Your task to perform on an android device: uninstall "Google Chrome" Image 0: 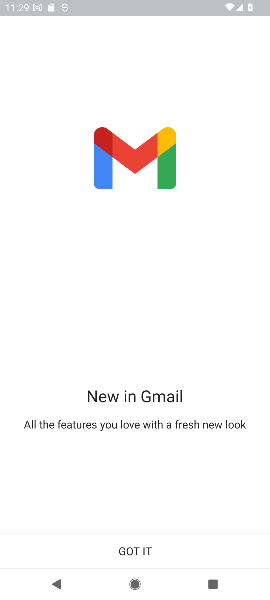
Step 0: press home button
Your task to perform on an android device: uninstall "Google Chrome" Image 1: 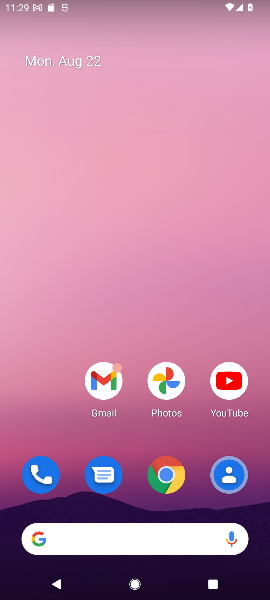
Step 1: drag from (113, 453) to (84, 24)
Your task to perform on an android device: uninstall "Google Chrome" Image 2: 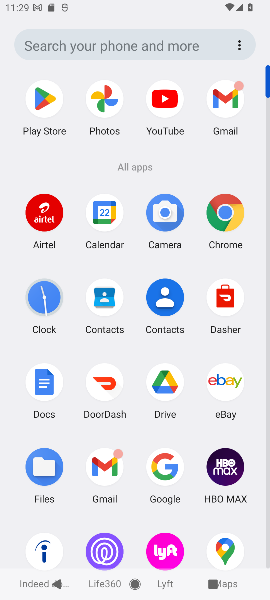
Step 2: click (47, 112)
Your task to perform on an android device: uninstall "Google Chrome" Image 3: 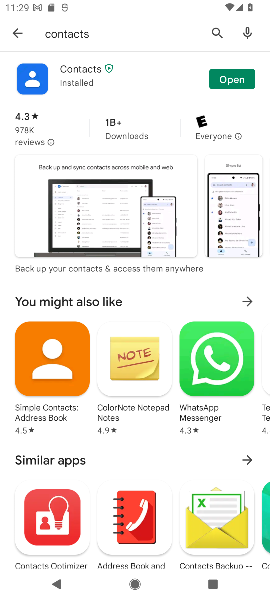
Step 3: click (17, 32)
Your task to perform on an android device: uninstall "Google Chrome" Image 4: 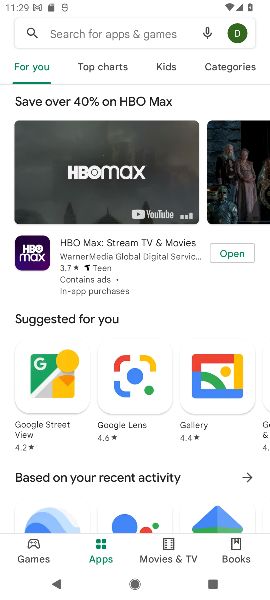
Step 4: click (102, 34)
Your task to perform on an android device: uninstall "Google Chrome" Image 5: 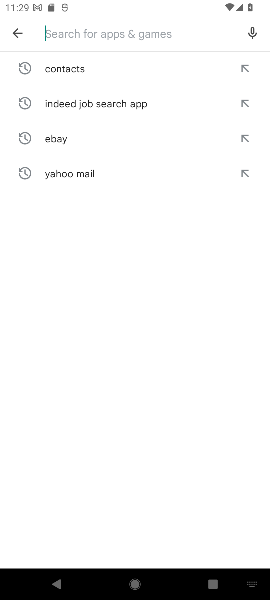
Step 5: type "Google Chrome"
Your task to perform on an android device: uninstall "Google Chrome" Image 6: 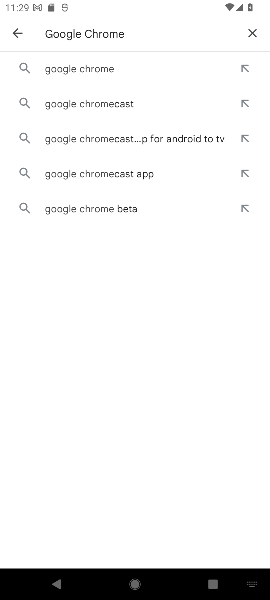
Step 6: click (101, 62)
Your task to perform on an android device: uninstall "Google Chrome" Image 7: 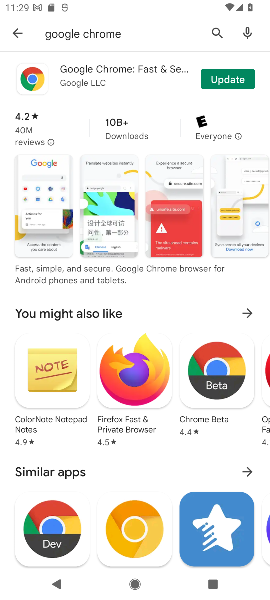
Step 7: click (103, 73)
Your task to perform on an android device: uninstall "Google Chrome" Image 8: 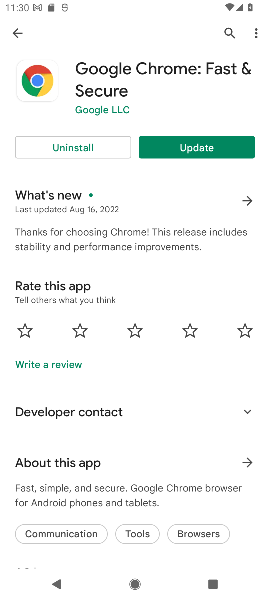
Step 8: click (91, 139)
Your task to perform on an android device: uninstall "Google Chrome" Image 9: 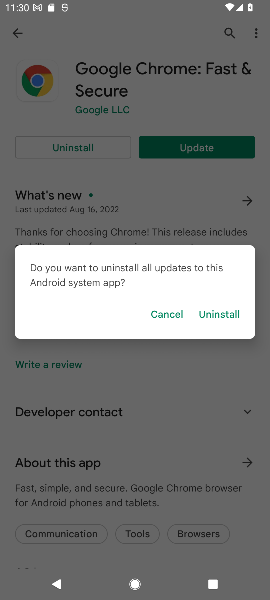
Step 9: click (223, 312)
Your task to perform on an android device: uninstall "Google Chrome" Image 10: 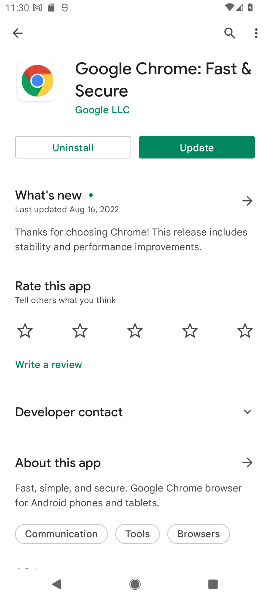
Step 10: click (65, 139)
Your task to perform on an android device: uninstall "Google Chrome" Image 11: 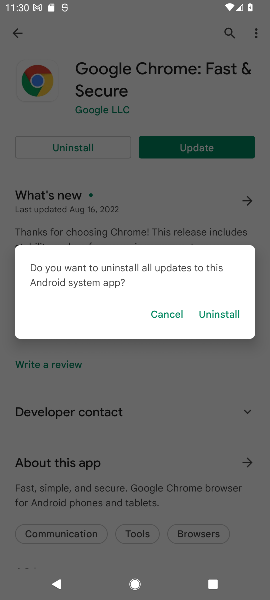
Step 11: click (218, 313)
Your task to perform on an android device: uninstall "Google Chrome" Image 12: 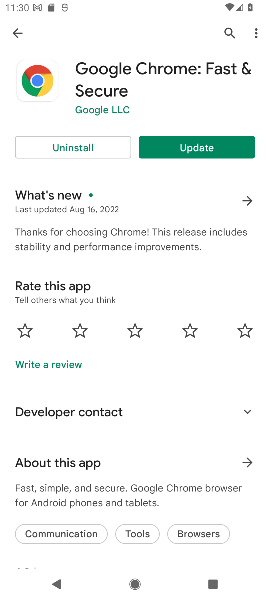
Step 12: click (75, 144)
Your task to perform on an android device: uninstall "Google Chrome" Image 13: 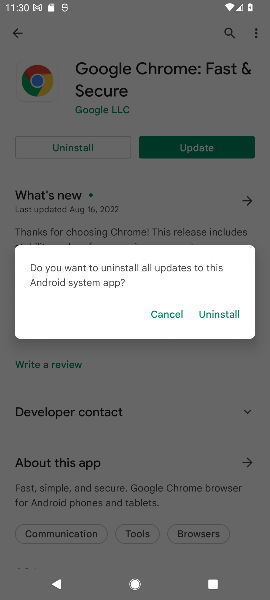
Step 13: click (229, 315)
Your task to perform on an android device: uninstall "Google Chrome" Image 14: 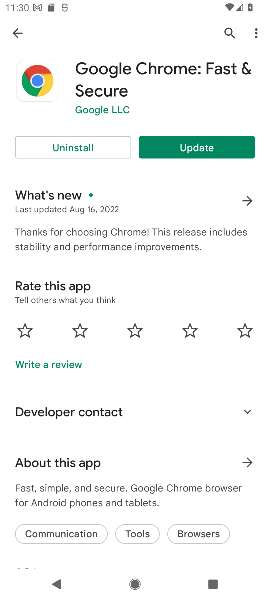
Step 14: task complete